Your task to perform on an android device: change the clock display to digital Image 0: 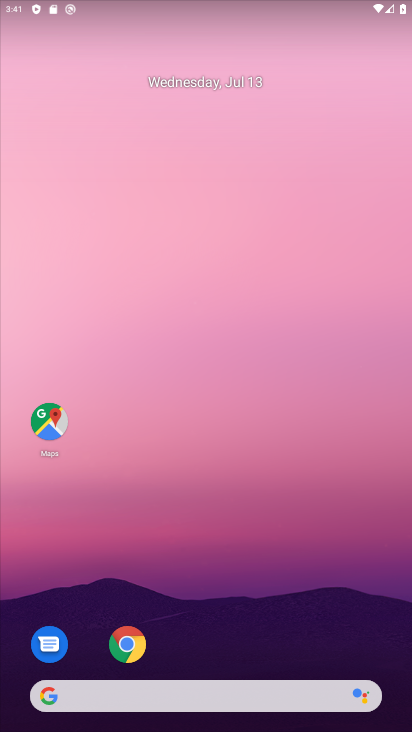
Step 0: drag from (229, 577) to (272, 28)
Your task to perform on an android device: change the clock display to digital Image 1: 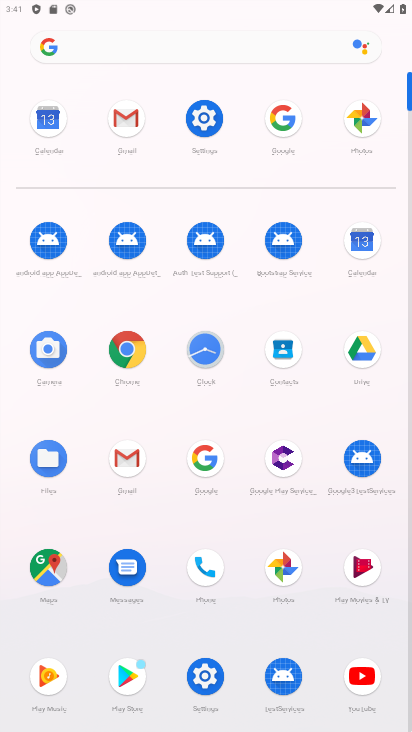
Step 1: click (189, 351)
Your task to perform on an android device: change the clock display to digital Image 2: 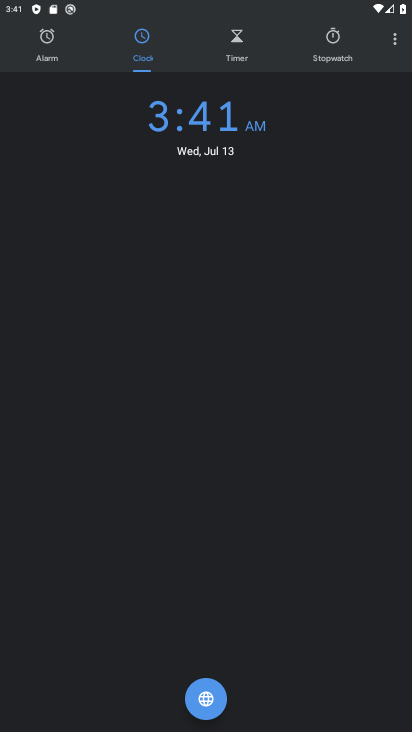
Step 2: click (396, 32)
Your task to perform on an android device: change the clock display to digital Image 3: 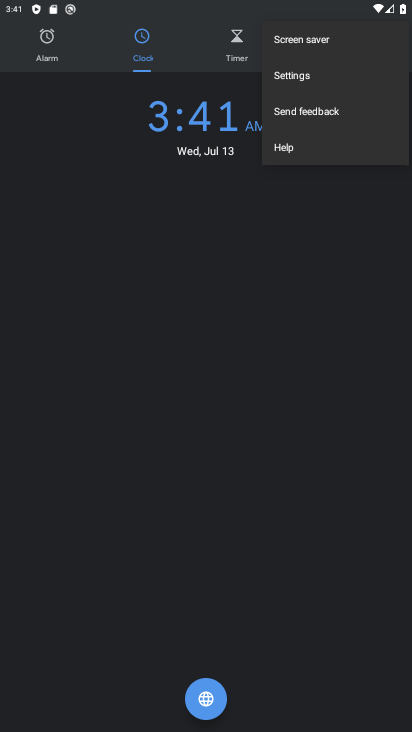
Step 3: click (322, 73)
Your task to perform on an android device: change the clock display to digital Image 4: 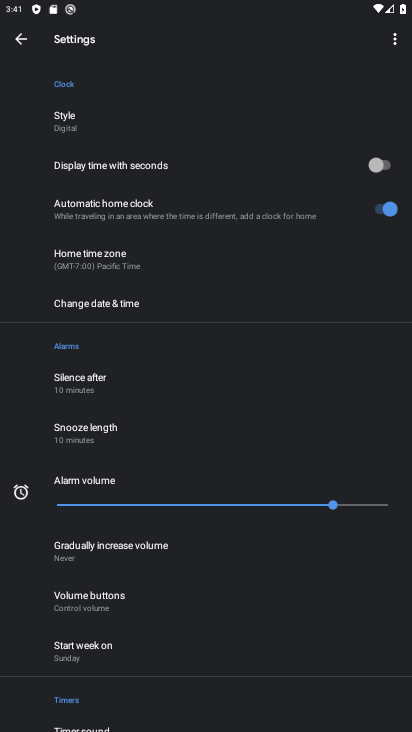
Step 4: click (73, 121)
Your task to perform on an android device: change the clock display to digital Image 5: 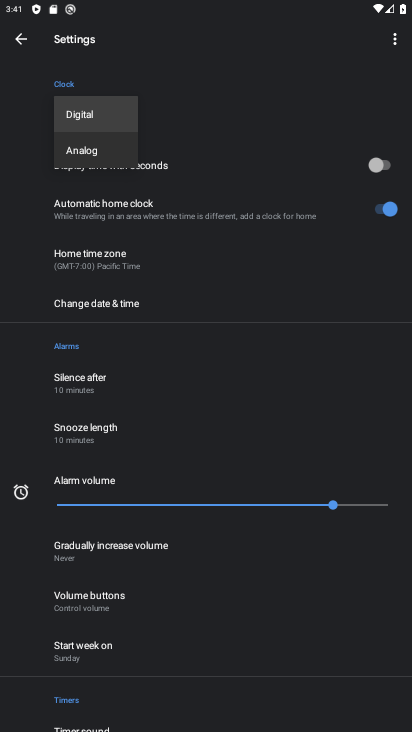
Step 5: click (100, 127)
Your task to perform on an android device: change the clock display to digital Image 6: 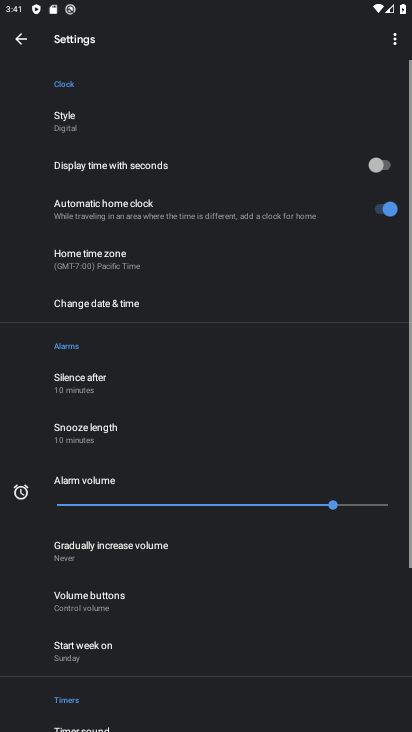
Step 6: task complete